Your task to perform on an android device: toggle location history Image 0: 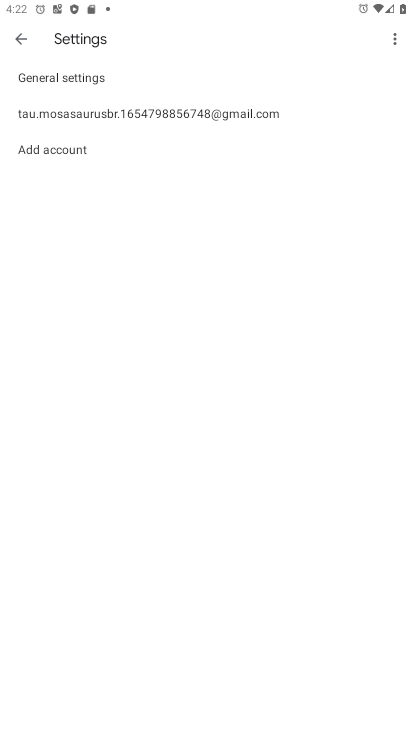
Step 0: press home button
Your task to perform on an android device: toggle location history Image 1: 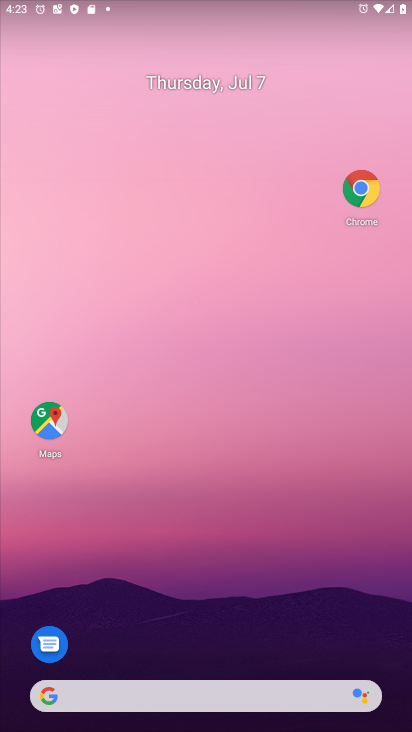
Step 1: drag from (155, 470) to (169, 22)
Your task to perform on an android device: toggle location history Image 2: 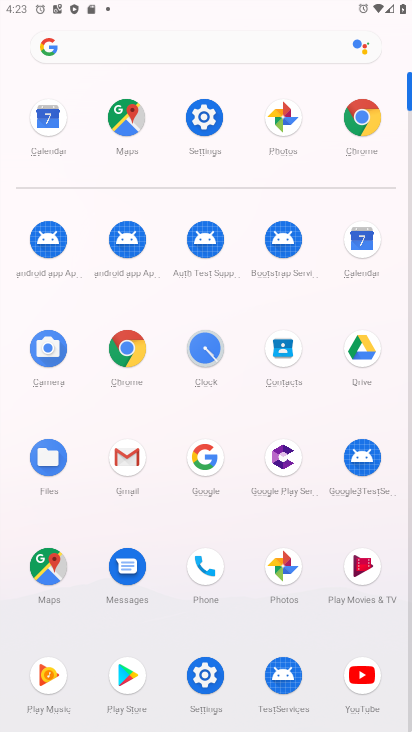
Step 2: click (196, 688)
Your task to perform on an android device: toggle location history Image 3: 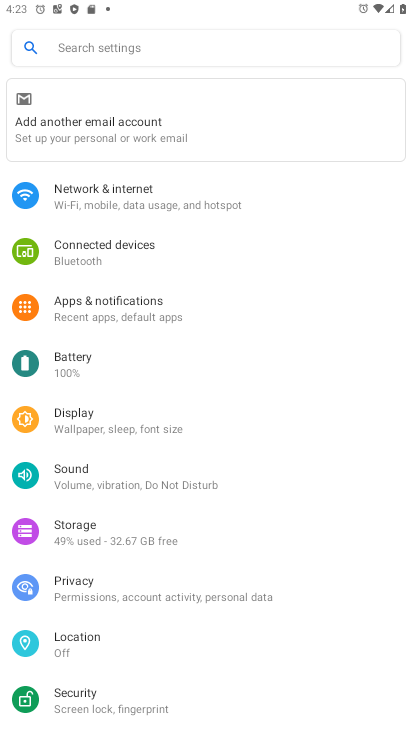
Step 3: click (84, 655)
Your task to perform on an android device: toggle location history Image 4: 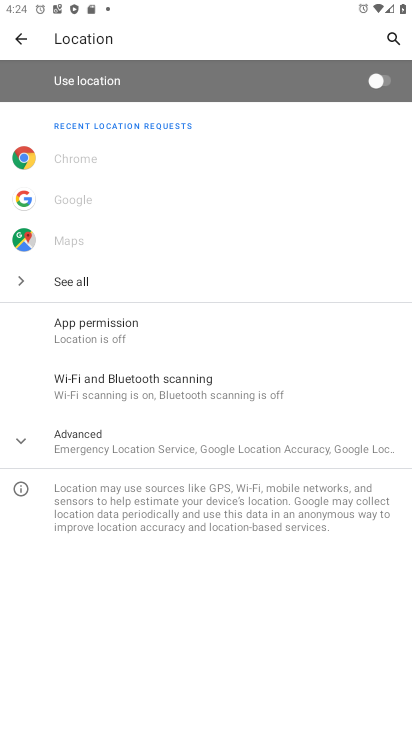
Step 4: press home button
Your task to perform on an android device: toggle location history Image 5: 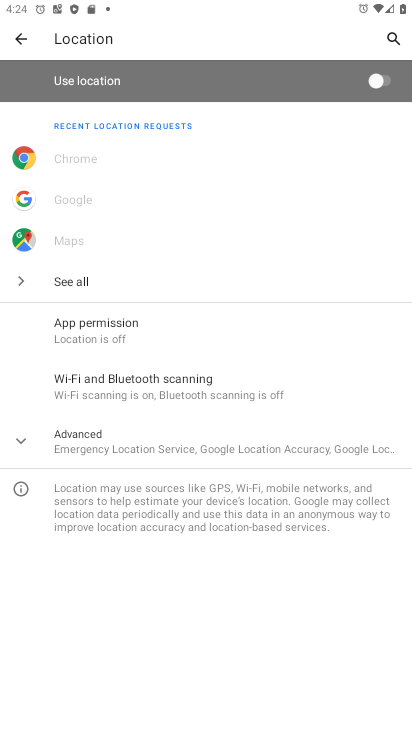
Step 5: press home button
Your task to perform on an android device: toggle location history Image 6: 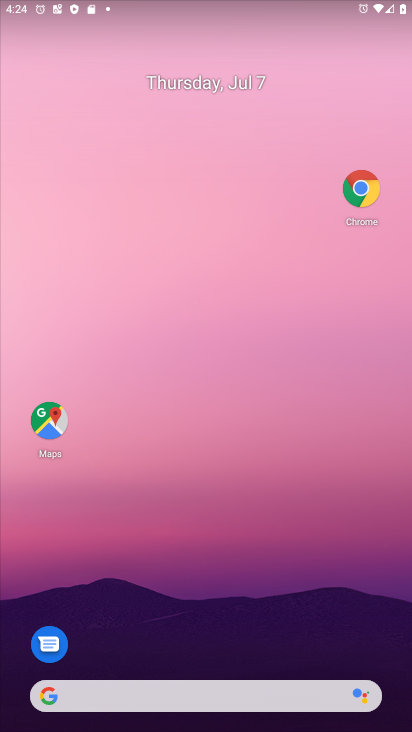
Step 6: click (40, 418)
Your task to perform on an android device: toggle location history Image 7: 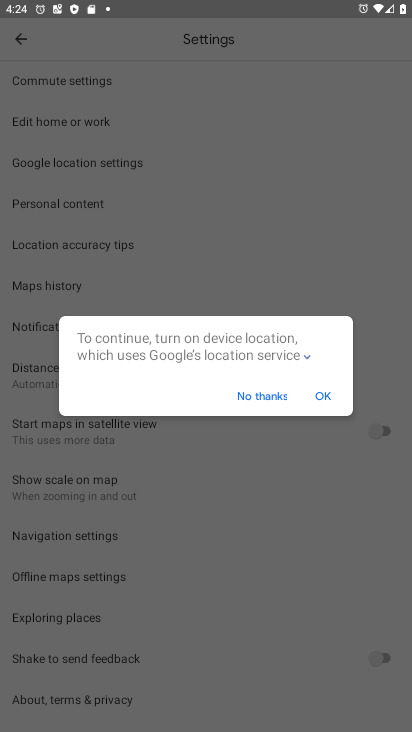
Step 7: click (247, 400)
Your task to perform on an android device: toggle location history Image 8: 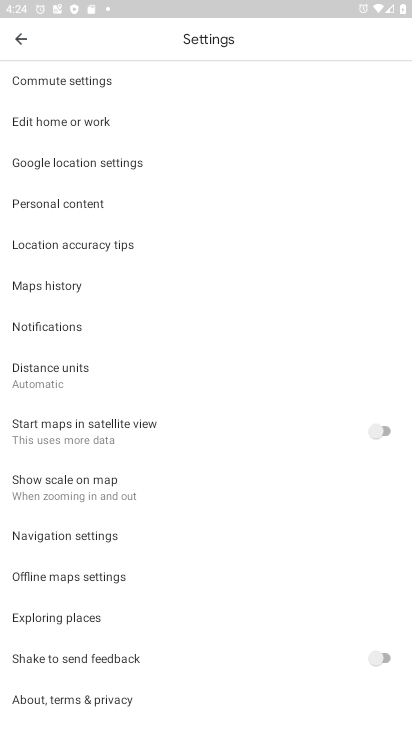
Step 8: click (17, 37)
Your task to perform on an android device: toggle location history Image 9: 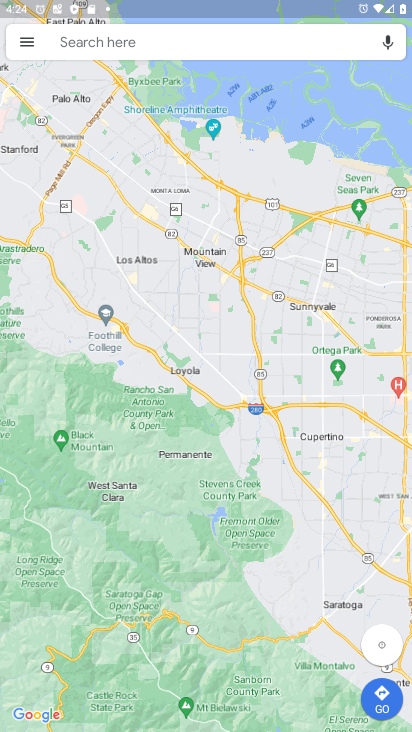
Step 9: click (11, 43)
Your task to perform on an android device: toggle location history Image 10: 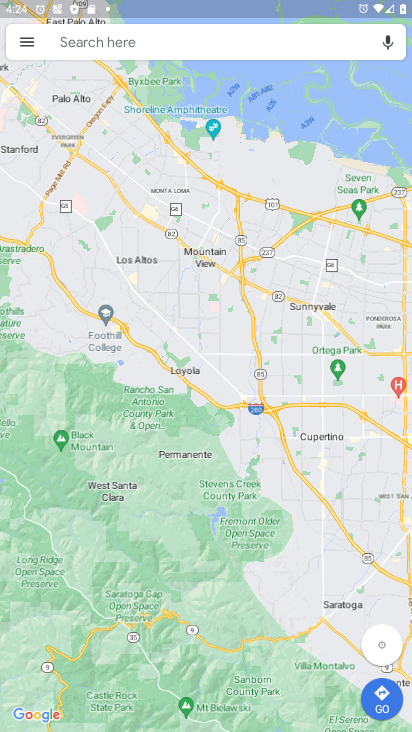
Step 10: click (28, 40)
Your task to perform on an android device: toggle location history Image 11: 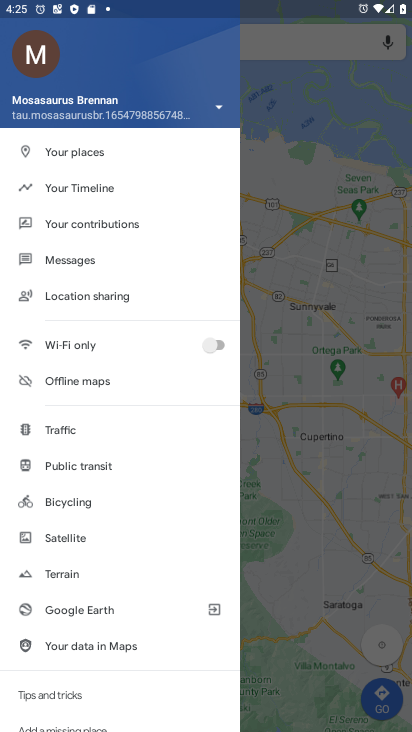
Step 11: click (108, 208)
Your task to perform on an android device: toggle location history Image 12: 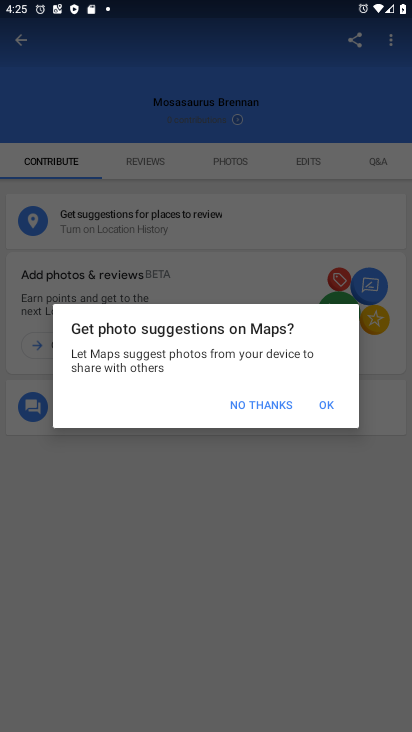
Step 12: click (256, 406)
Your task to perform on an android device: toggle location history Image 13: 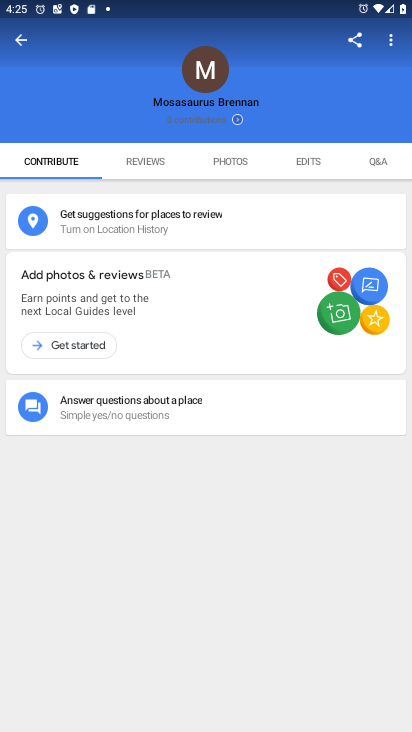
Step 13: click (26, 39)
Your task to perform on an android device: toggle location history Image 14: 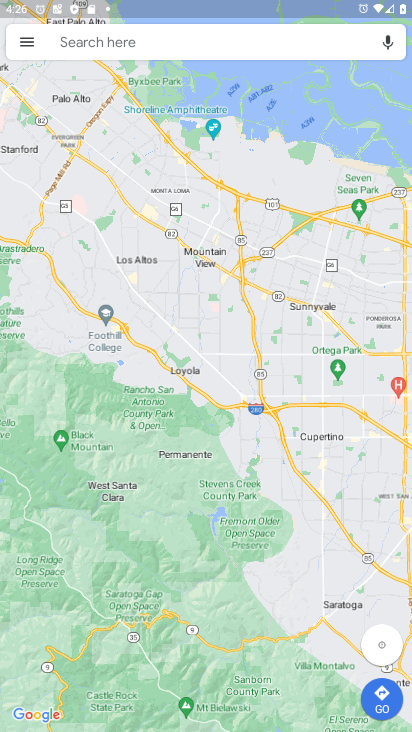
Step 14: click (32, 42)
Your task to perform on an android device: toggle location history Image 15: 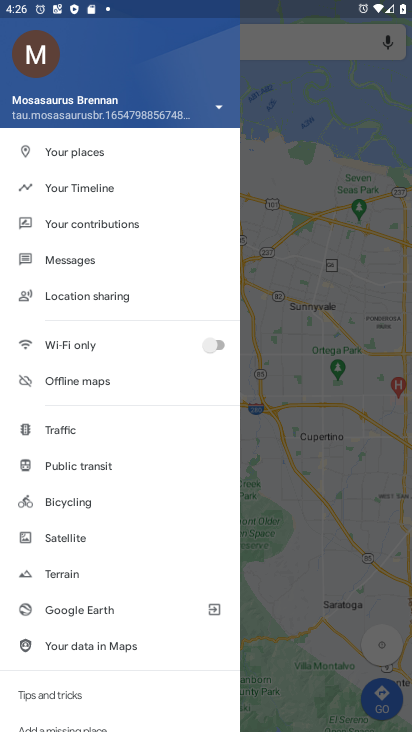
Step 15: drag from (103, 586) to (98, 415)
Your task to perform on an android device: toggle location history Image 16: 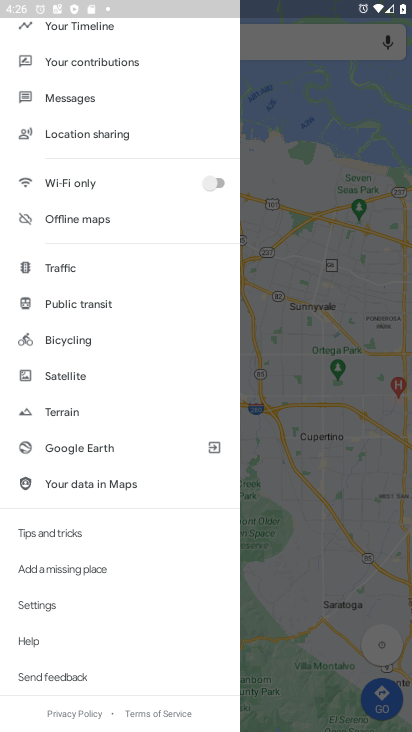
Step 16: drag from (126, 587) to (114, 512)
Your task to perform on an android device: toggle location history Image 17: 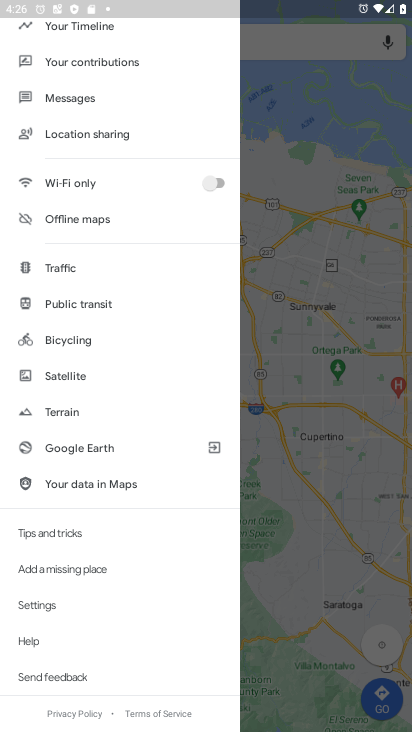
Step 17: click (88, 27)
Your task to perform on an android device: toggle location history Image 18: 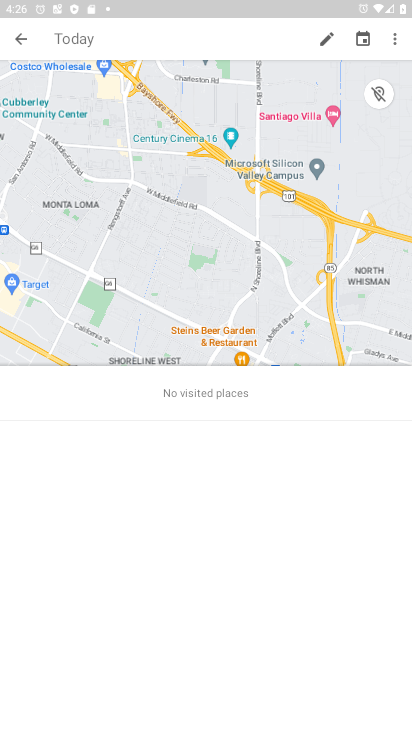
Step 18: click (390, 45)
Your task to perform on an android device: toggle location history Image 19: 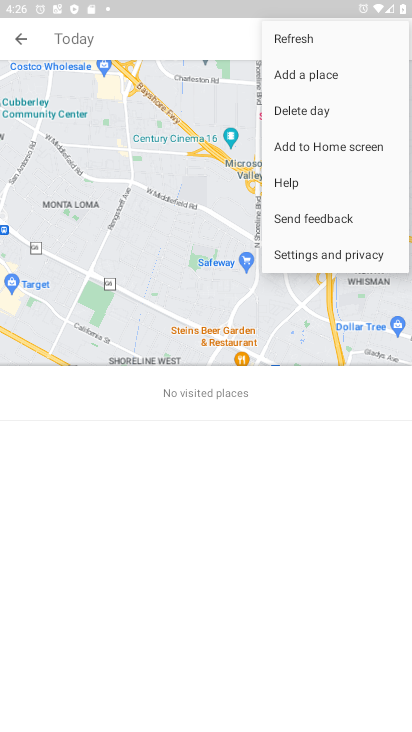
Step 19: click (309, 241)
Your task to perform on an android device: toggle location history Image 20: 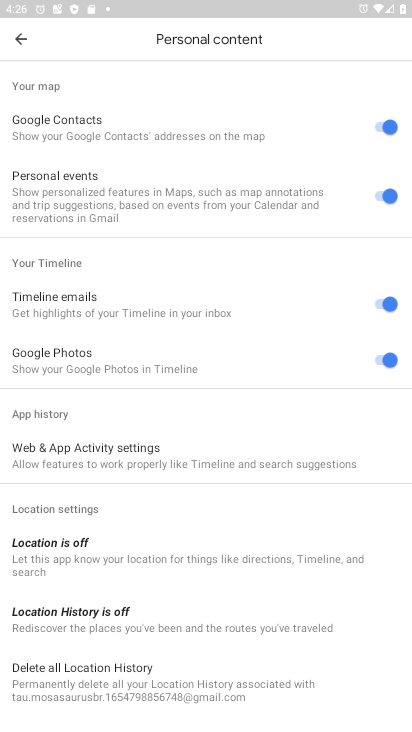
Step 20: click (95, 632)
Your task to perform on an android device: toggle location history Image 21: 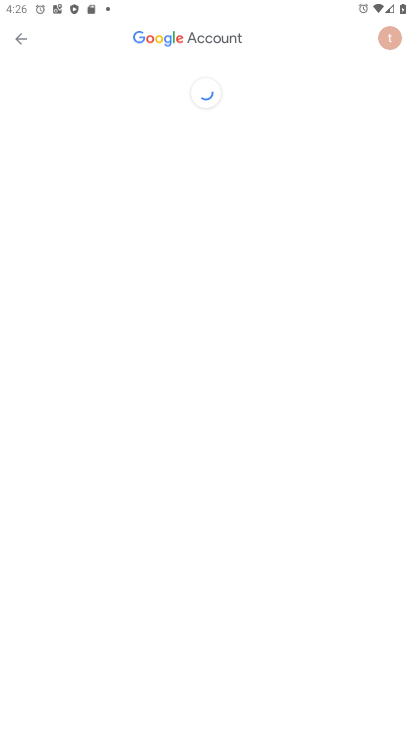
Step 21: drag from (324, 639) to (225, 365)
Your task to perform on an android device: toggle location history Image 22: 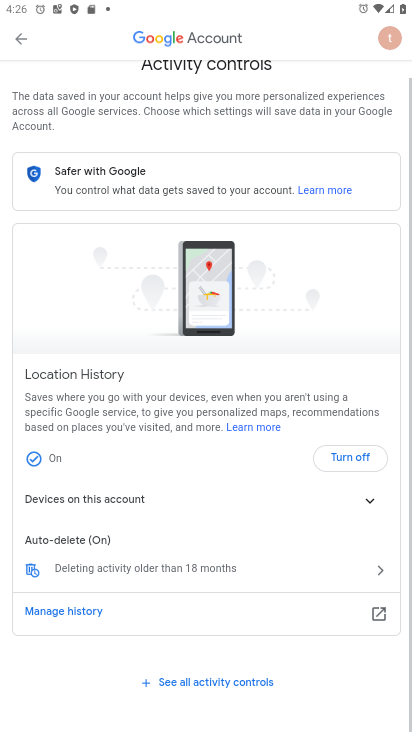
Step 22: drag from (252, 596) to (134, 308)
Your task to perform on an android device: toggle location history Image 23: 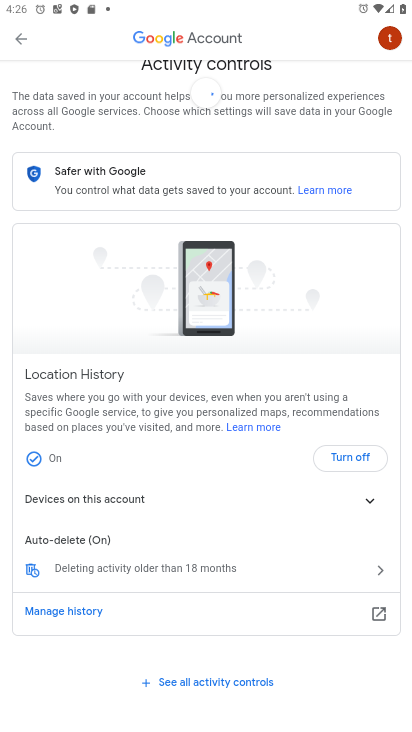
Step 23: click (343, 448)
Your task to perform on an android device: toggle location history Image 24: 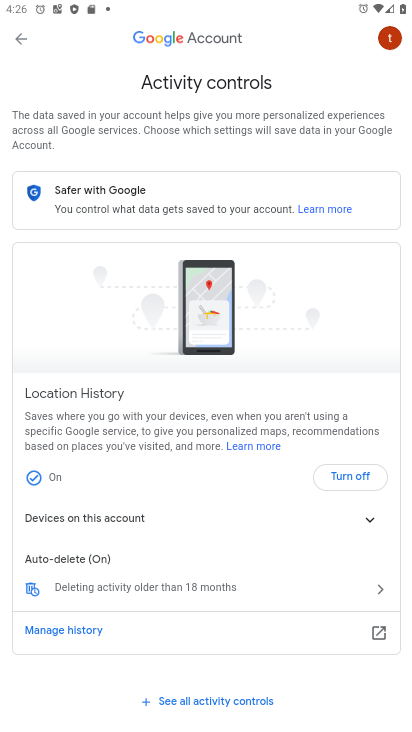
Step 24: click (348, 481)
Your task to perform on an android device: toggle location history Image 25: 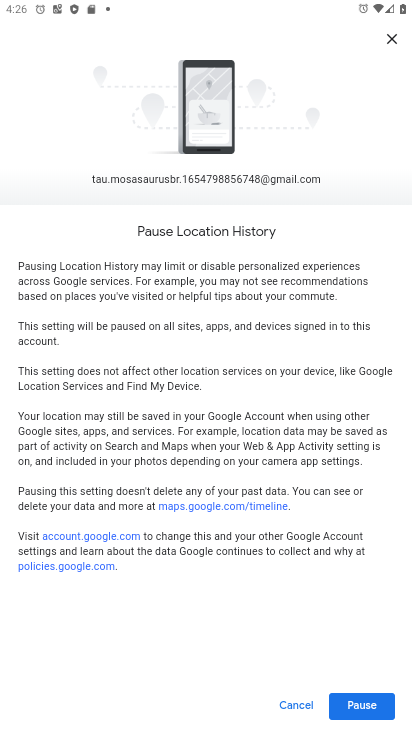
Step 25: click (358, 712)
Your task to perform on an android device: toggle location history Image 26: 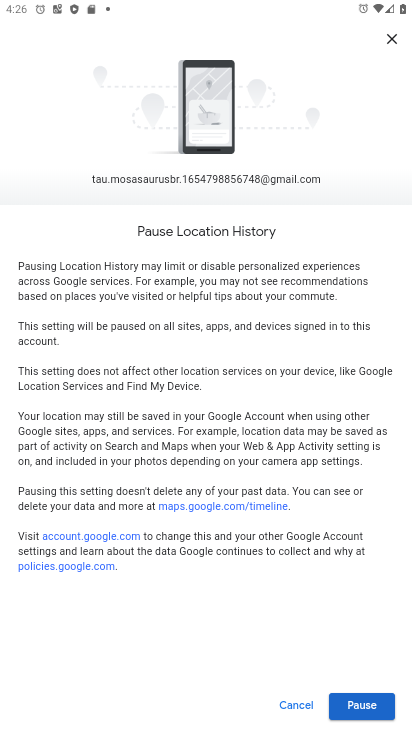
Step 26: click (361, 714)
Your task to perform on an android device: toggle location history Image 27: 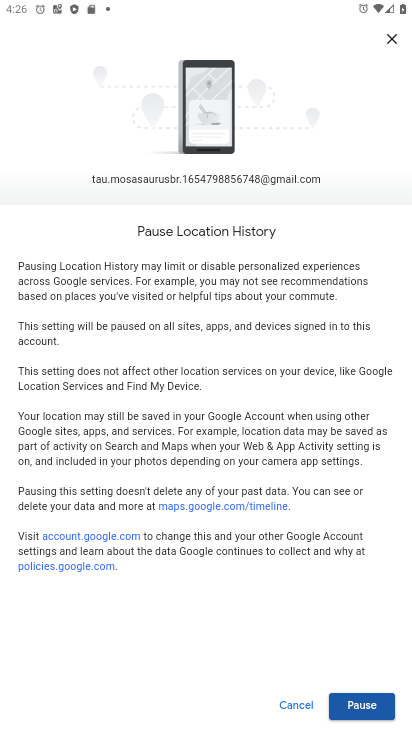
Step 27: click (361, 714)
Your task to perform on an android device: toggle location history Image 28: 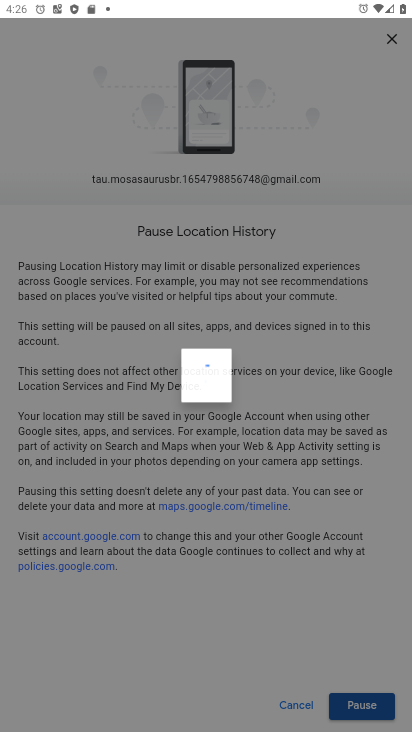
Step 28: click (381, 655)
Your task to perform on an android device: toggle location history Image 29: 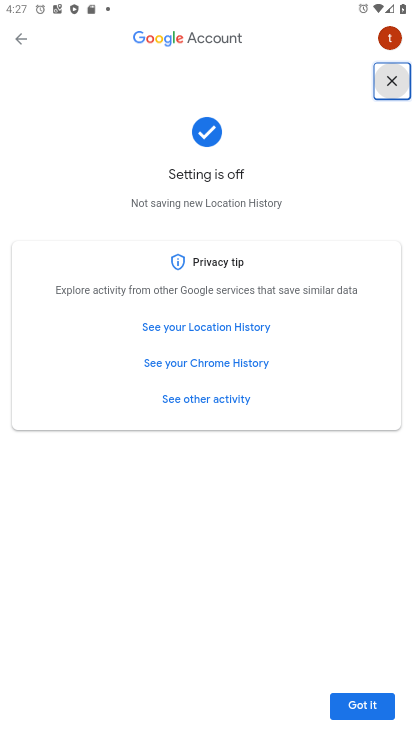
Step 29: click (347, 698)
Your task to perform on an android device: toggle location history Image 30: 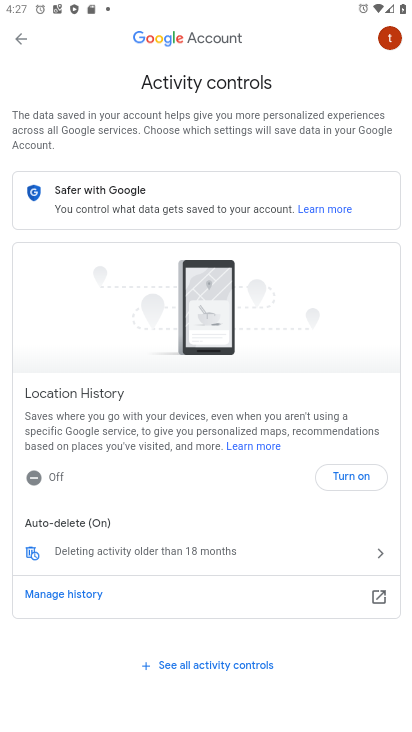
Step 30: task complete